Your task to perform on an android device: Open the phone app and click the voicemail tab. Image 0: 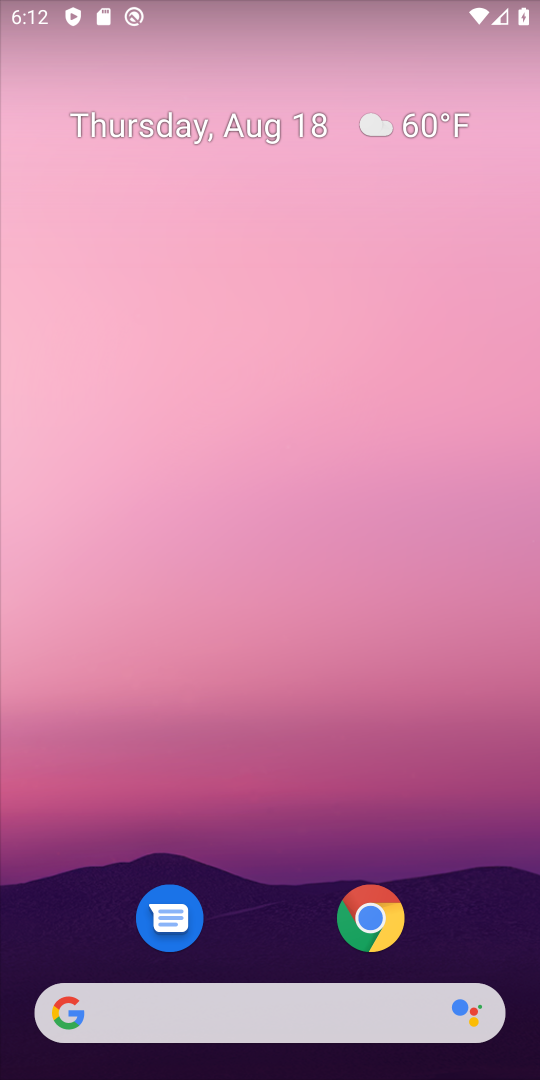
Step 0: press home button
Your task to perform on an android device: Open the phone app and click the voicemail tab. Image 1: 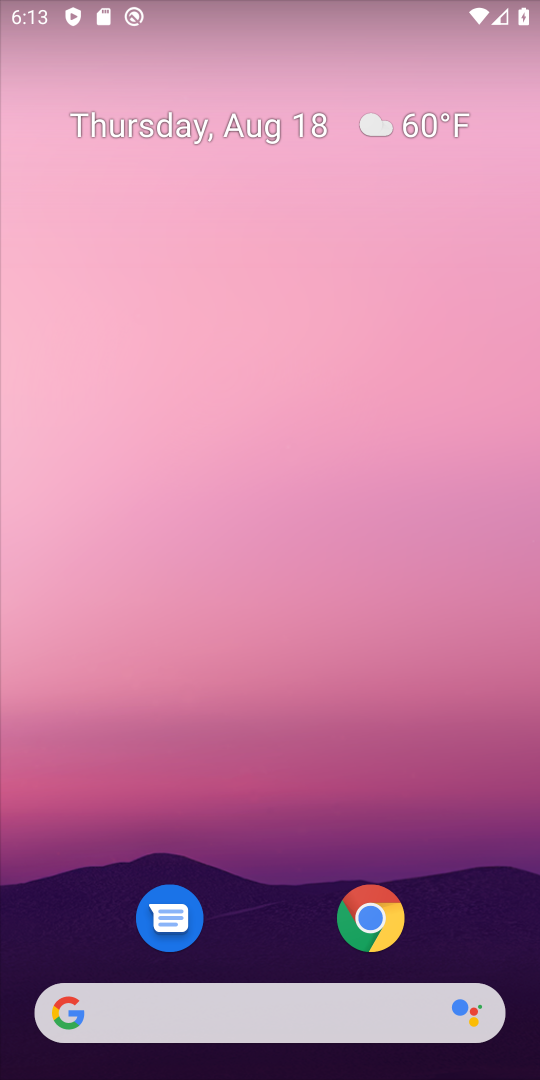
Step 1: drag from (307, 924) to (117, 0)
Your task to perform on an android device: Open the phone app and click the voicemail tab. Image 2: 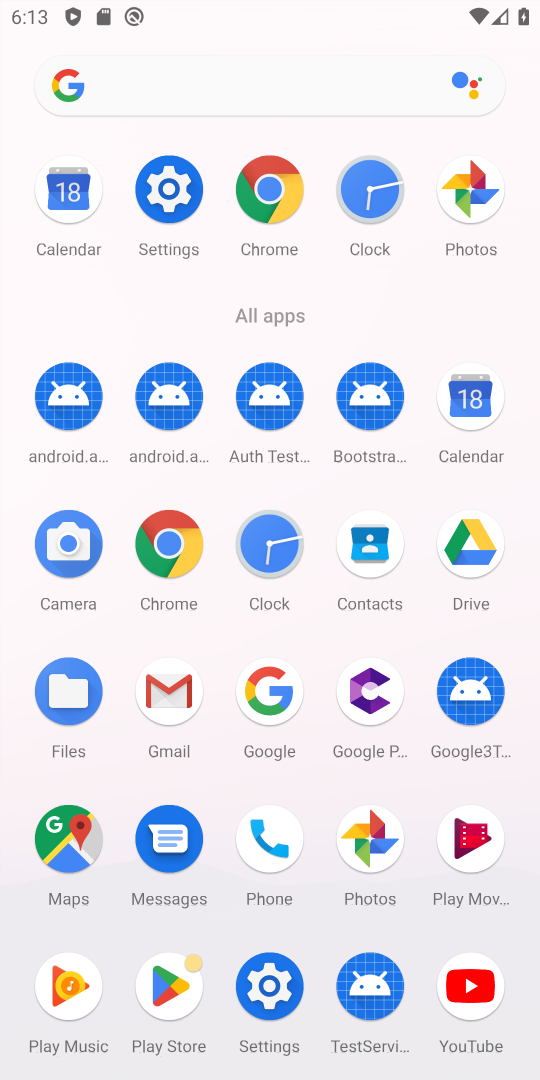
Step 2: click (248, 839)
Your task to perform on an android device: Open the phone app and click the voicemail tab. Image 3: 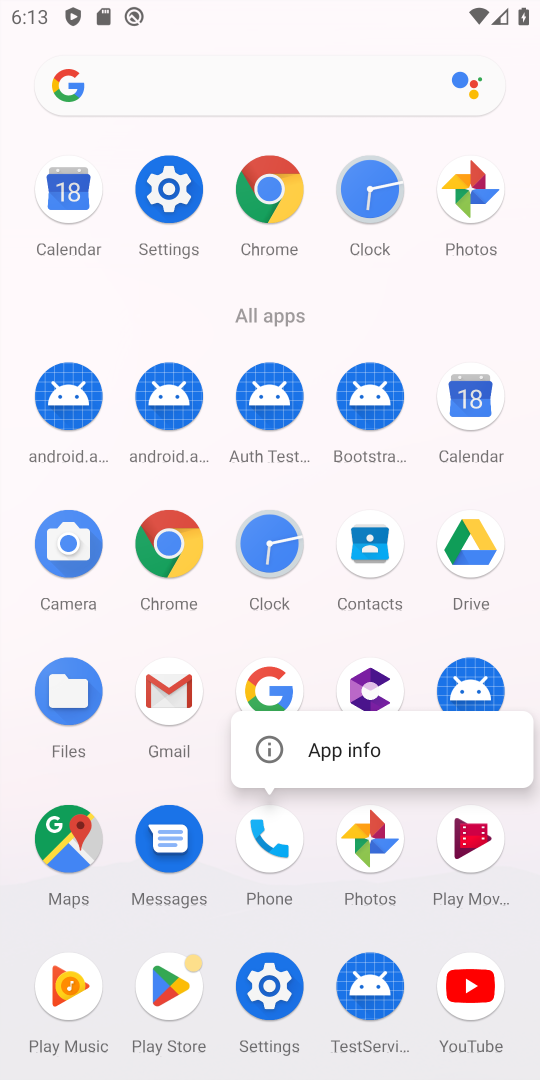
Step 3: click (257, 845)
Your task to perform on an android device: Open the phone app and click the voicemail tab. Image 4: 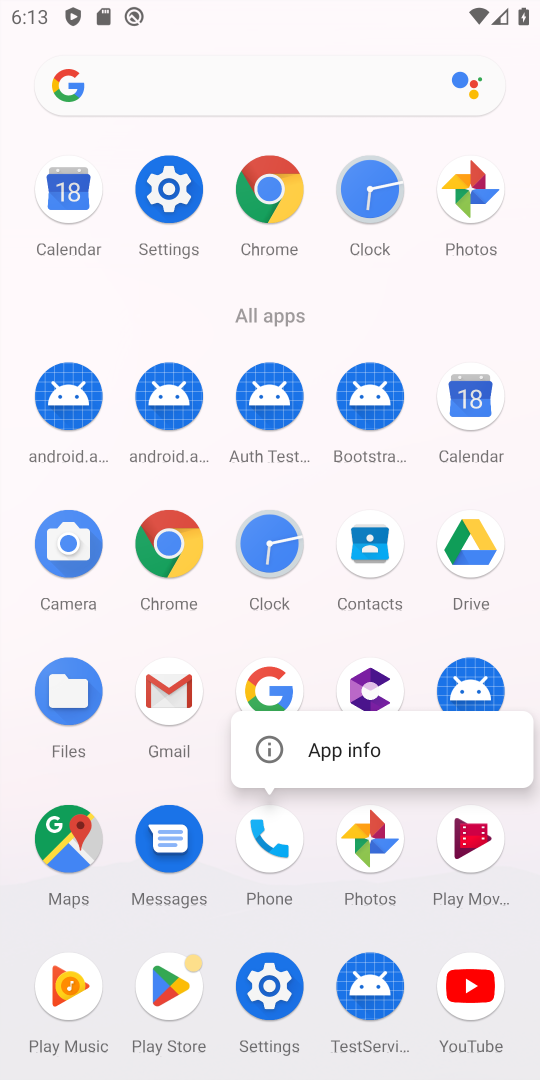
Step 4: click (275, 856)
Your task to perform on an android device: Open the phone app and click the voicemail tab. Image 5: 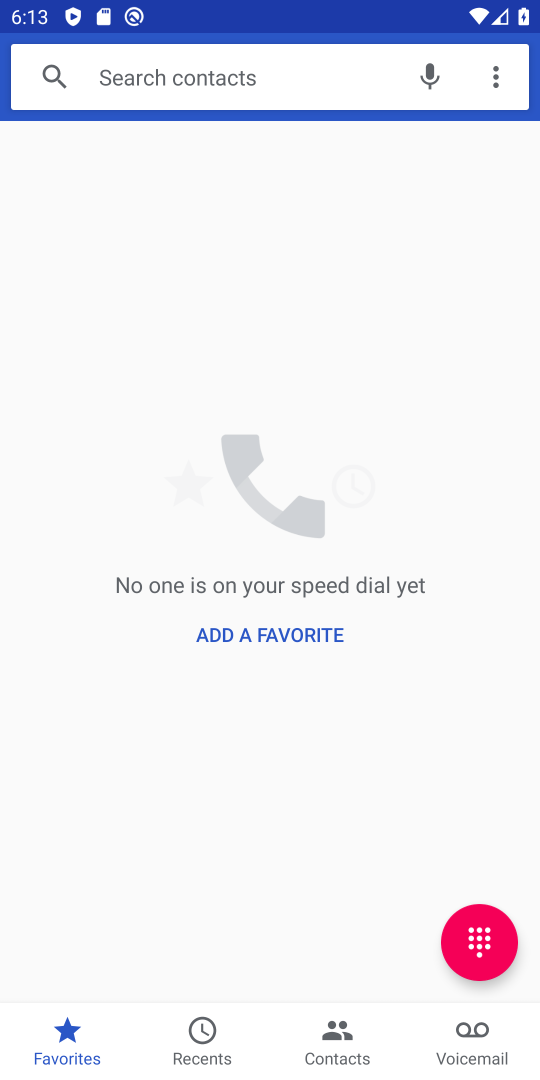
Step 5: click (455, 1049)
Your task to perform on an android device: Open the phone app and click the voicemail tab. Image 6: 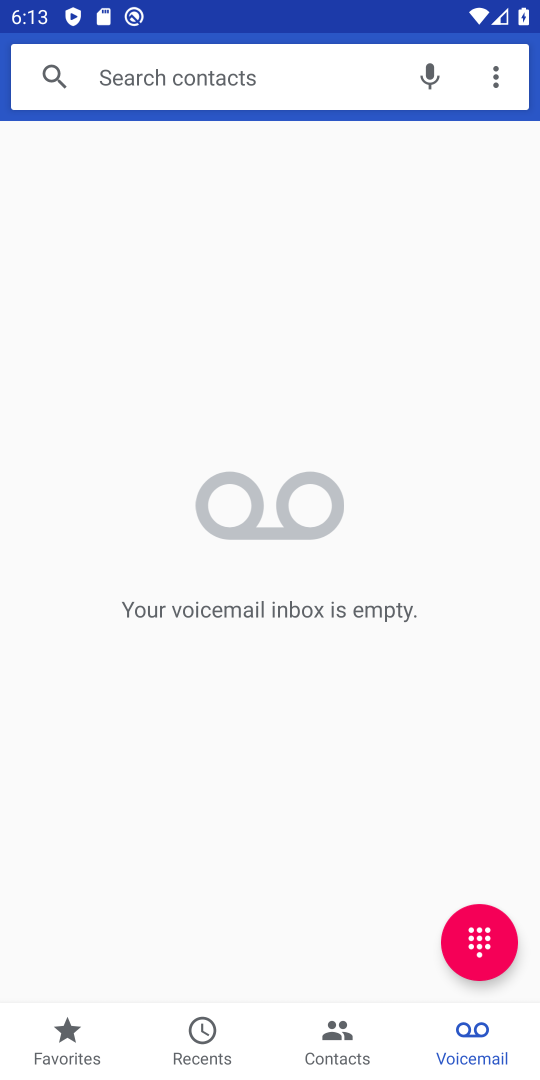
Step 6: task complete